Your task to perform on an android device: check android version Image 0: 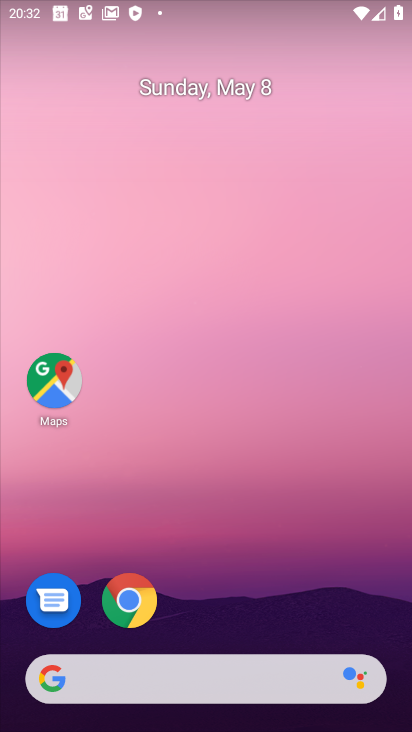
Step 0: drag from (270, 706) to (321, 264)
Your task to perform on an android device: check android version Image 1: 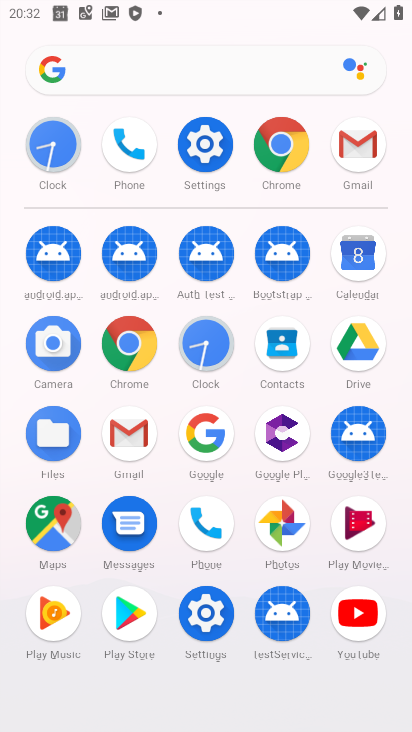
Step 1: click (211, 161)
Your task to perform on an android device: check android version Image 2: 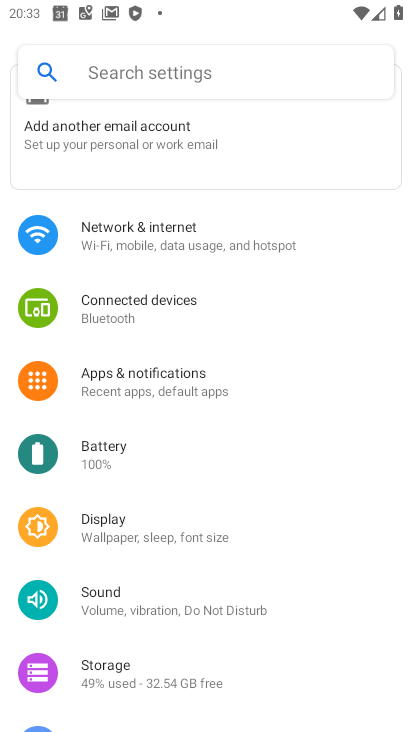
Step 2: click (116, 75)
Your task to perform on an android device: check android version Image 3: 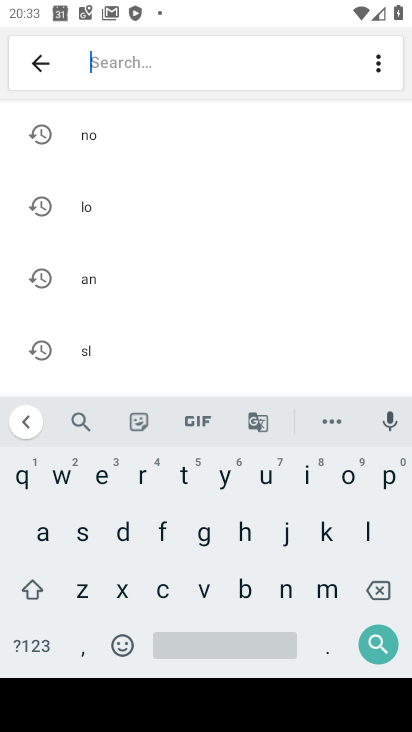
Step 3: click (38, 537)
Your task to perform on an android device: check android version Image 4: 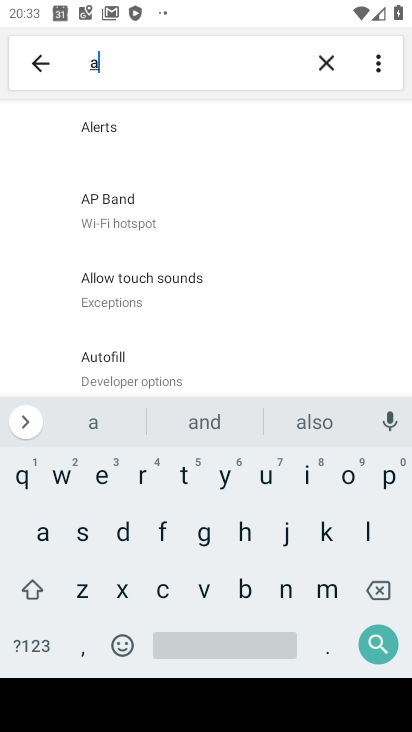
Step 4: click (293, 587)
Your task to perform on an android device: check android version Image 5: 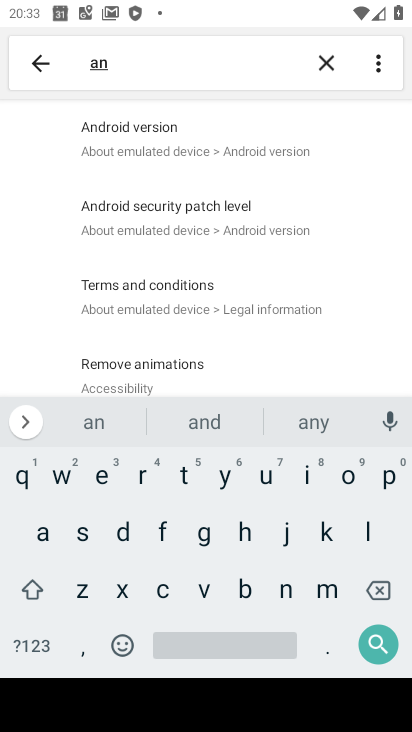
Step 5: click (146, 125)
Your task to perform on an android device: check android version Image 6: 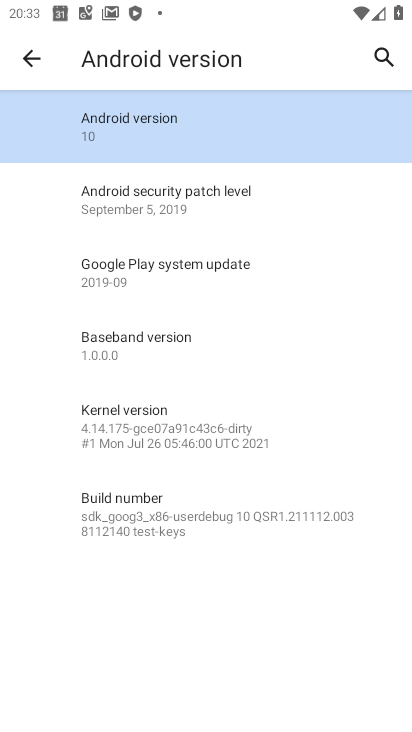
Step 6: click (131, 120)
Your task to perform on an android device: check android version Image 7: 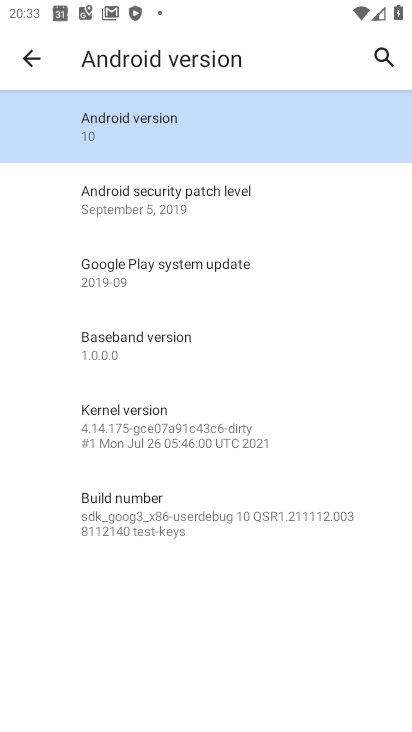
Step 7: click (165, 121)
Your task to perform on an android device: check android version Image 8: 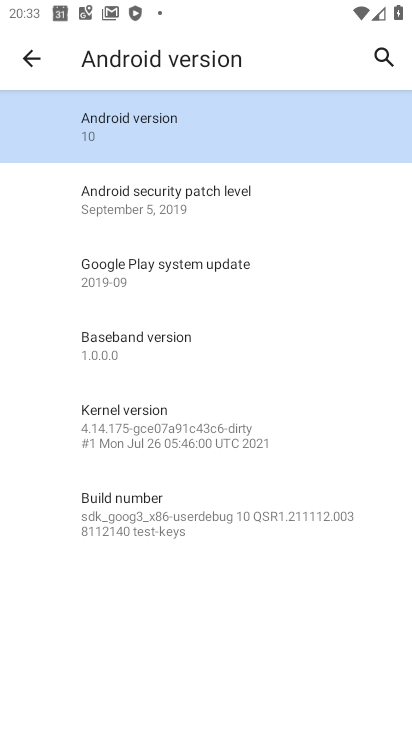
Step 8: task complete